Your task to perform on an android device: Open Google Chrome Image 0: 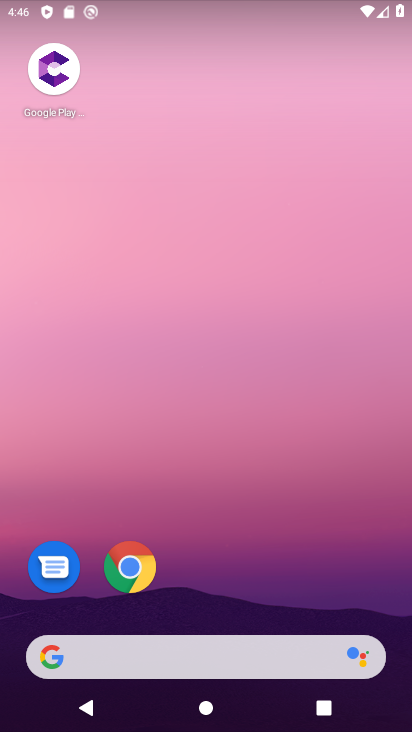
Step 0: click (133, 566)
Your task to perform on an android device: Open Google Chrome Image 1: 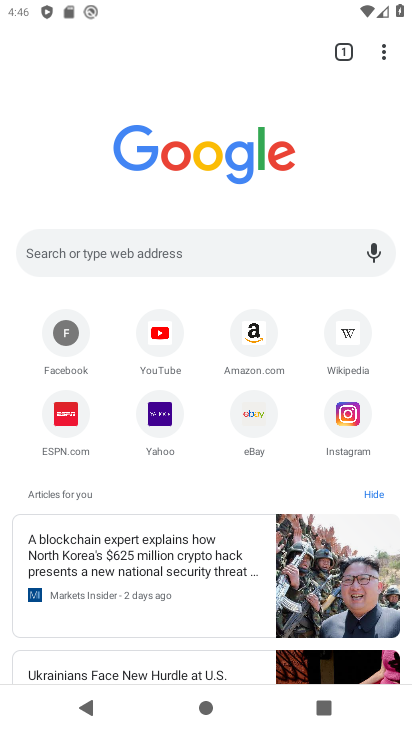
Step 1: task complete